Your task to perform on an android device: allow notifications from all sites in the chrome app Image 0: 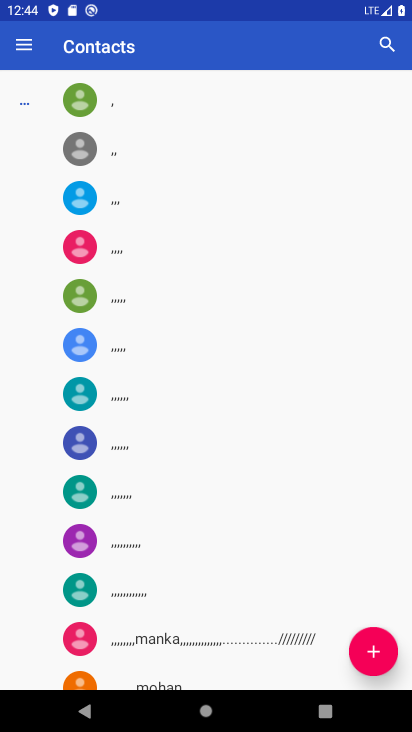
Step 0: press home button
Your task to perform on an android device: allow notifications from all sites in the chrome app Image 1: 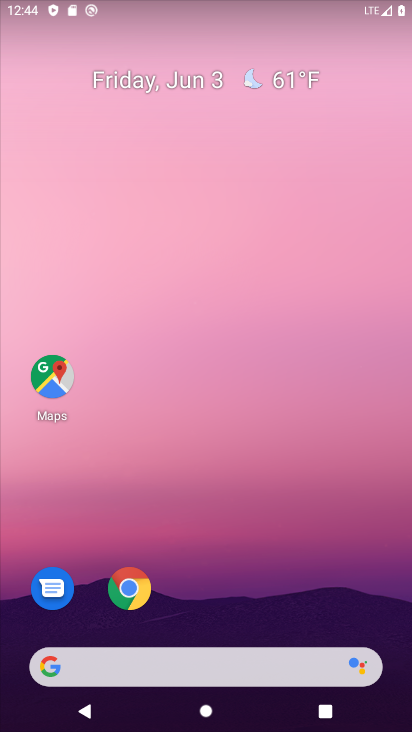
Step 1: click (123, 582)
Your task to perform on an android device: allow notifications from all sites in the chrome app Image 2: 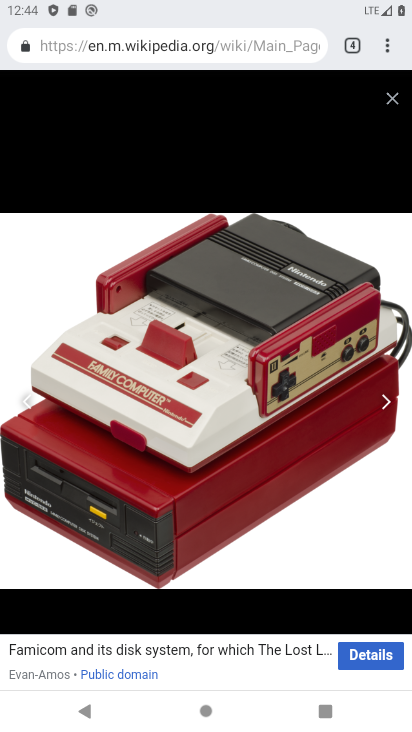
Step 2: press home button
Your task to perform on an android device: allow notifications from all sites in the chrome app Image 3: 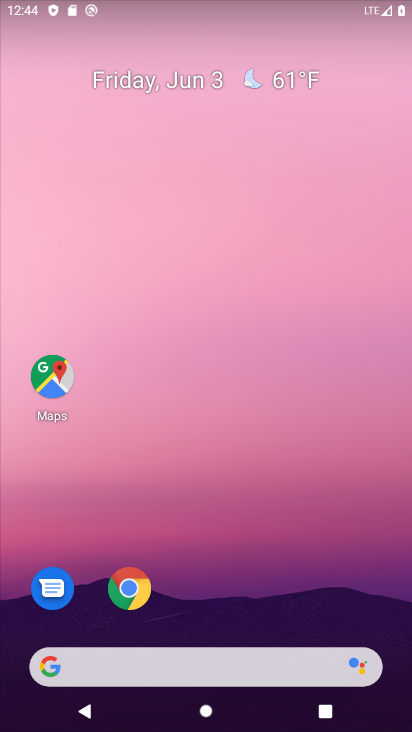
Step 3: click (118, 586)
Your task to perform on an android device: allow notifications from all sites in the chrome app Image 4: 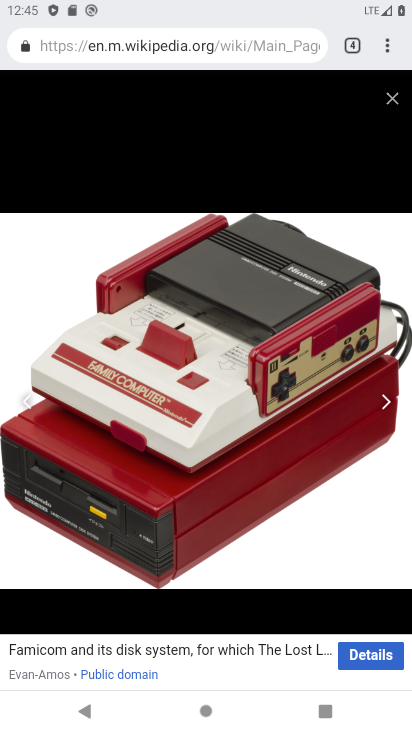
Step 4: click (388, 51)
Your task to perform on an android device: allow notifications from all sites in the chrome app Image 5: 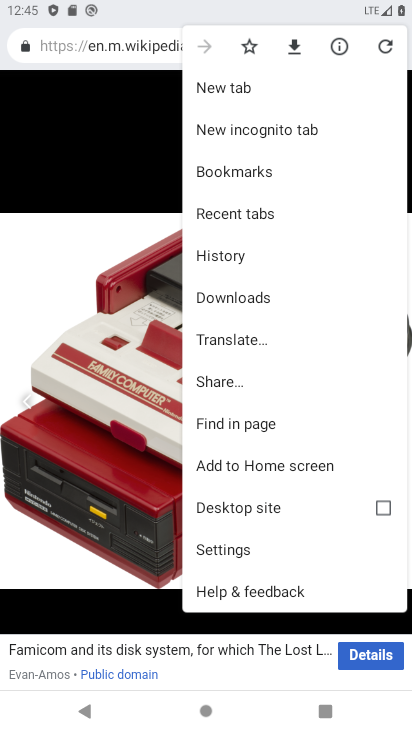
Step 5: click (240, 546)
Your task to perform on an android device: allow notifications from all sites in the chrome app Image 6: 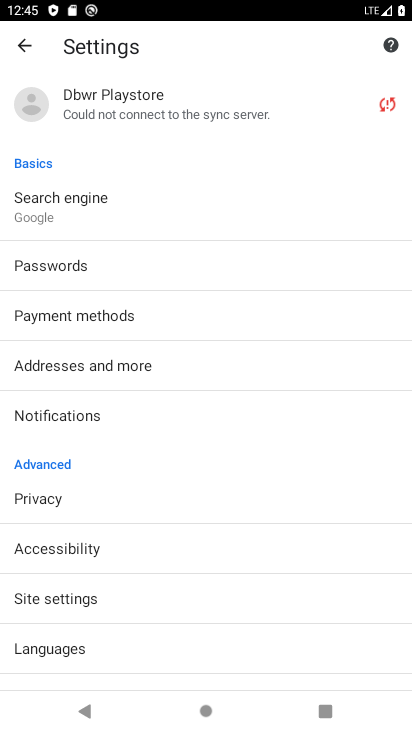
Step 6: click (48, 600)
Your task to perform on an android device: allow notifications from all sites in the chrome app Image 7: 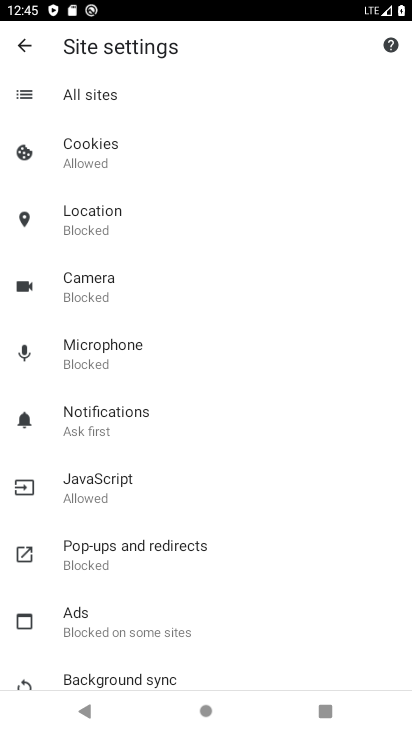
Step 7: click (98, 420)
Your task to perform on an android device: allow notifications from all sites in the chrome app Image 8: 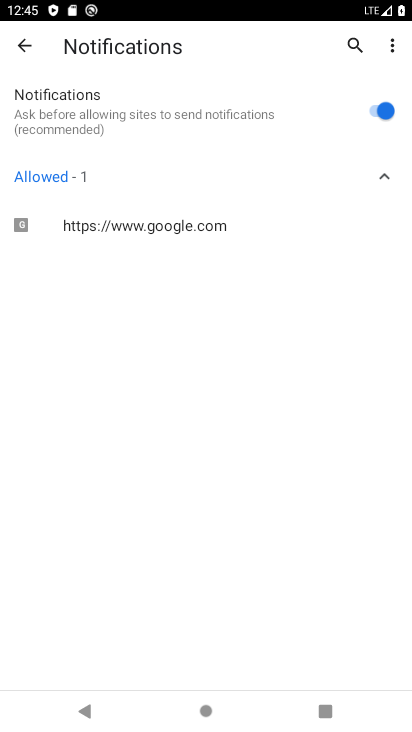
Step 8: task complete